Your task to perform on an android device: Go to settings Image 0: 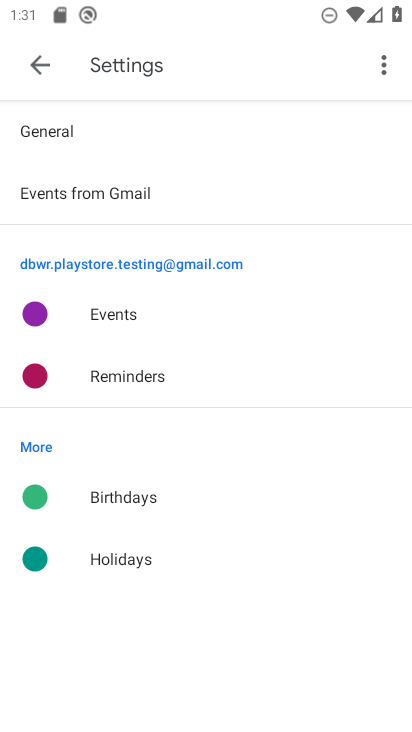
Step 0: press back button
Your task to perform on an android device: Go to settings Image 1: 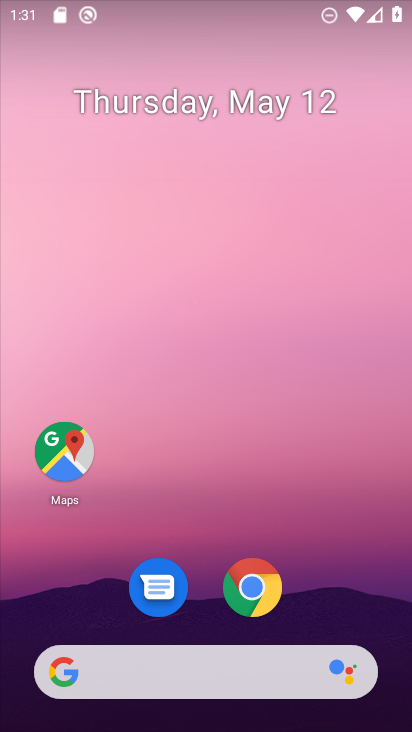
Step 1: drag from (335, 589) to (235, 124)
Your task to perform on an android device: Go to settings Image 2: 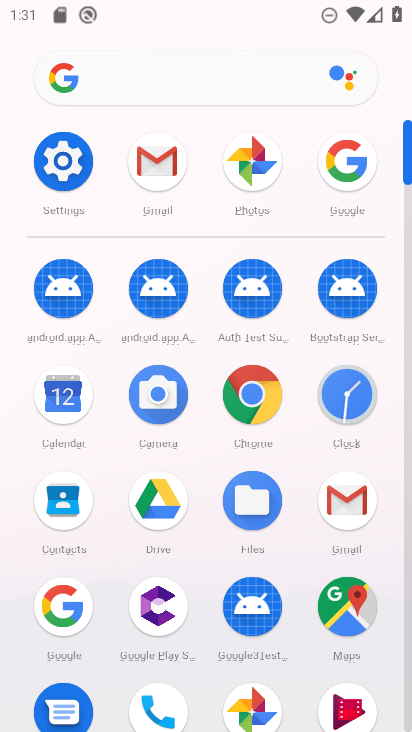
Step 2: click (59, 158)
Your task to perform on an android device: Go to settings Image 3: 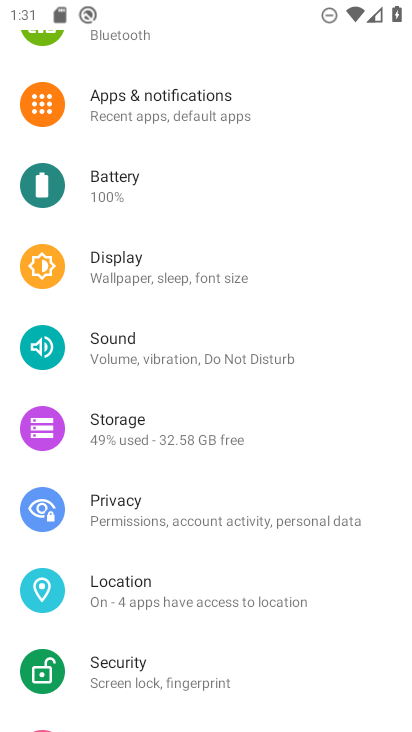
Step 3: task complete